Your task to perform on an android device: turn on the 12-hour format for clock Image 0: 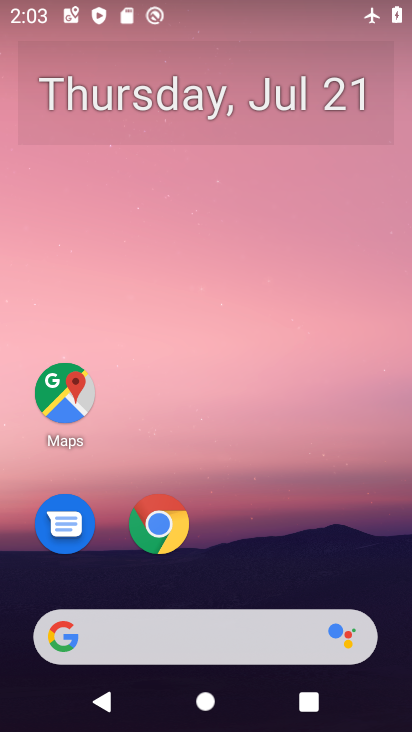
Step 0: drag from (253, 567) to (244, 0)
Your task to perform on an android device: turn on the 12-hour format for clock Image 1: 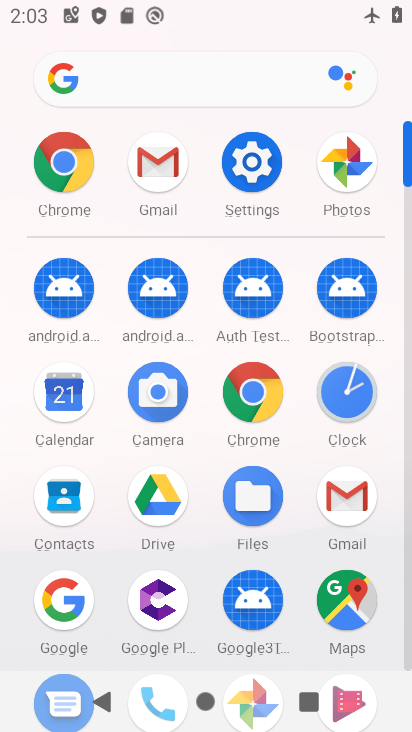
Step 1: click (348, 382)
Your task to perform on an android device: turn on the 12-hour format for clock Image 2: 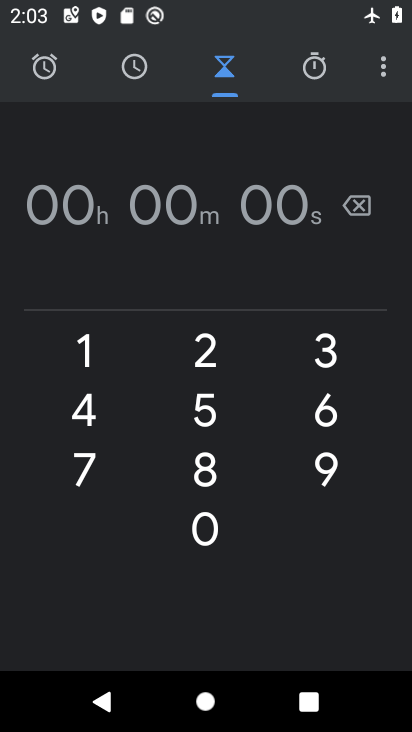
Step 2: click (383, 76)
Your task to perform on an android device: turn on the 12-hour format for clock Image 3: 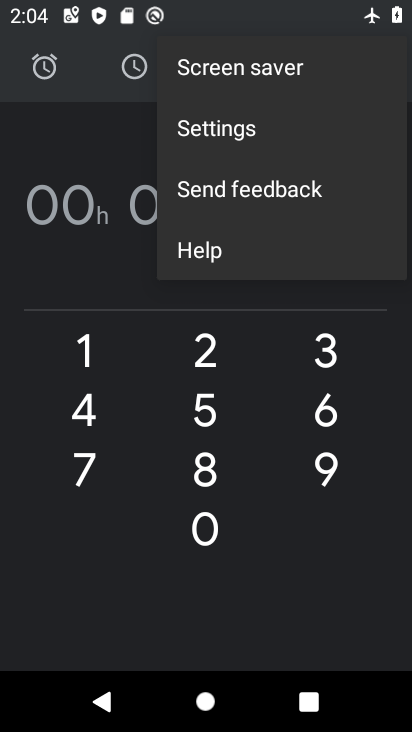
Step 3: click (262, 122)
Your task to perform on an android device: turn on the 12-hour format for clock Image 4: 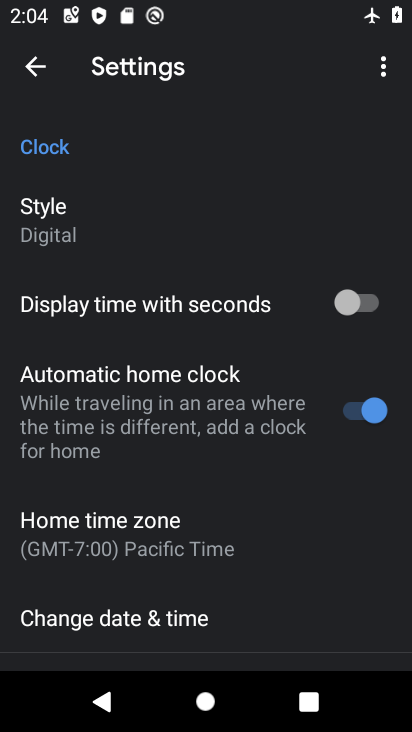
Step 4: click (230, 622)
Your task to perform on an android device: turn on the 12-hour format for clock Image 5: 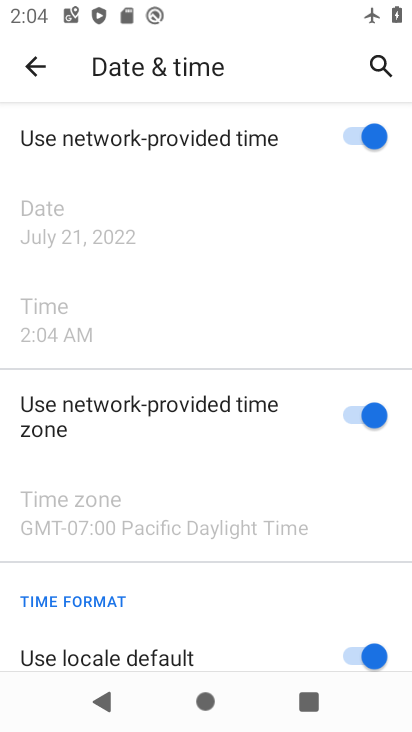
Step 5: task complete